Your task to perform on an android device: turn off sleep mode Image 0: 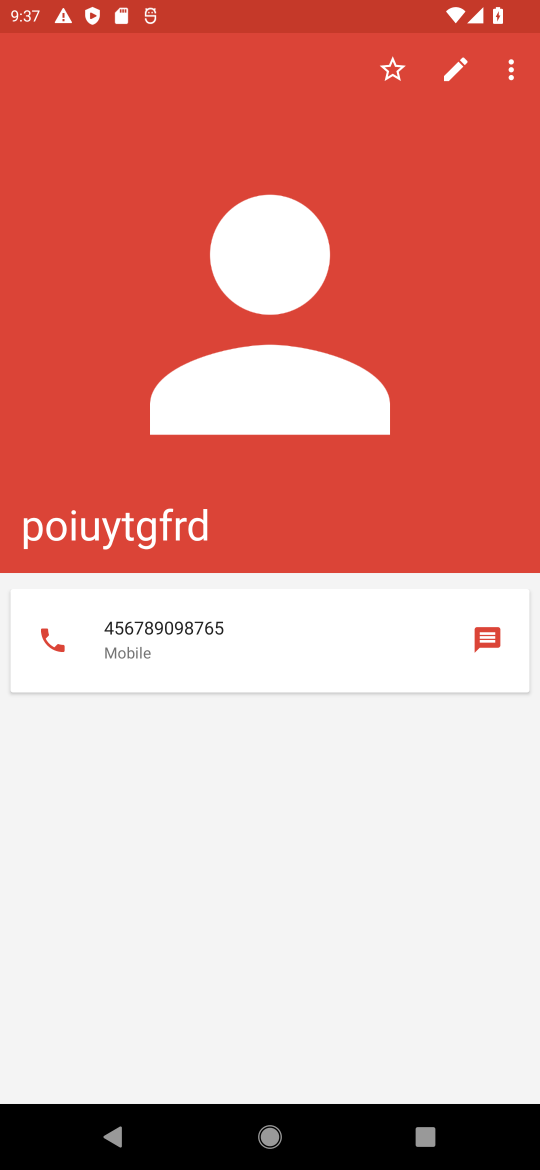
Step 0: press home button
Your task to perform on an android device: turn off sleep mode Image 1: 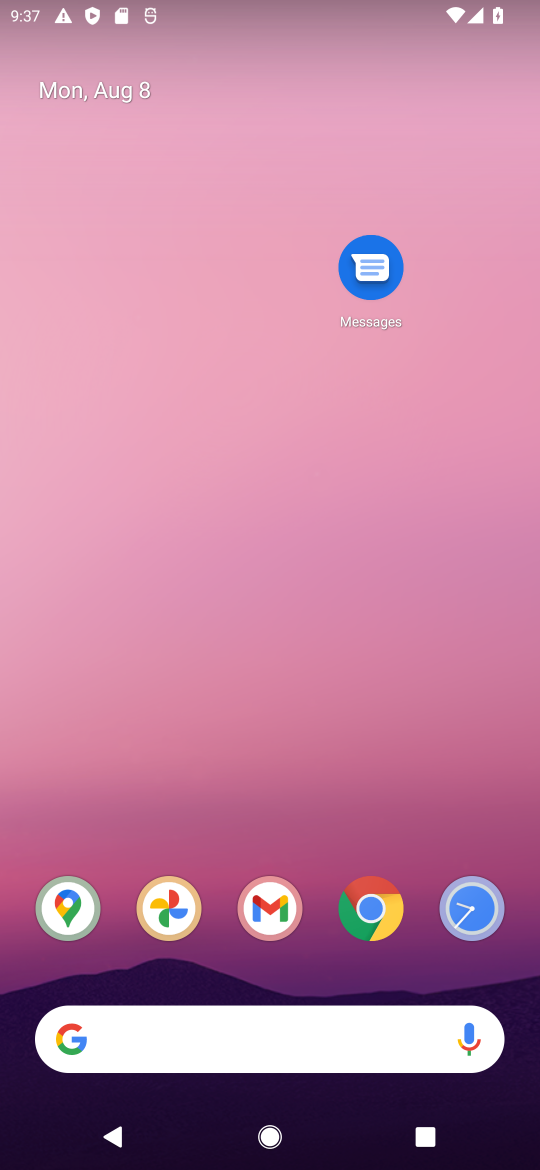
Step 1: click (96, 86)
Your task to perform on an android device: turn off sleep mode Image 2: 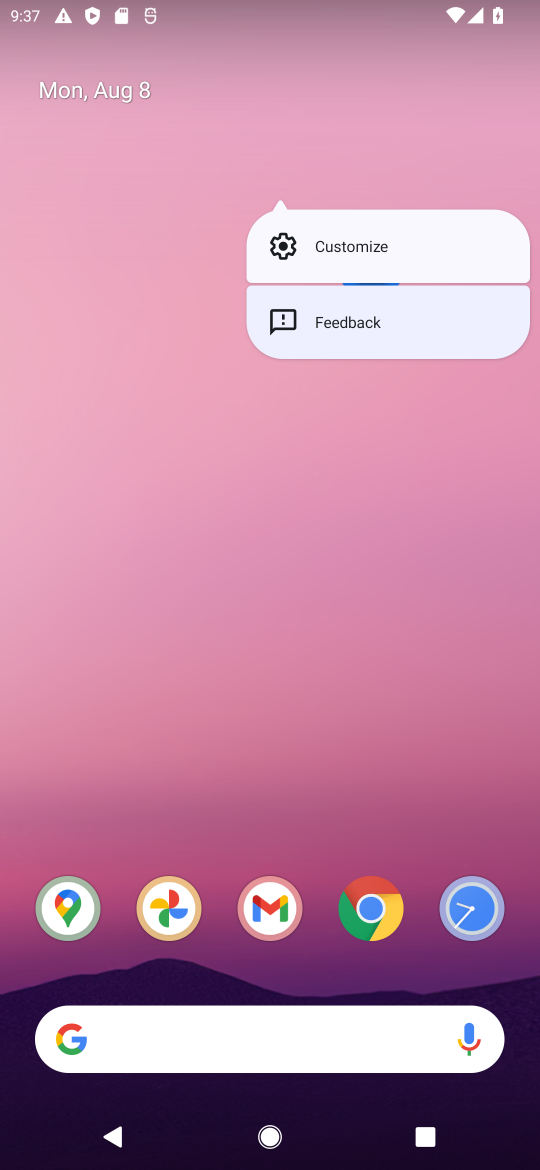
Step 2: click (96, 86)
Your task to perform on an android device: turn off sleep mode Image 3: 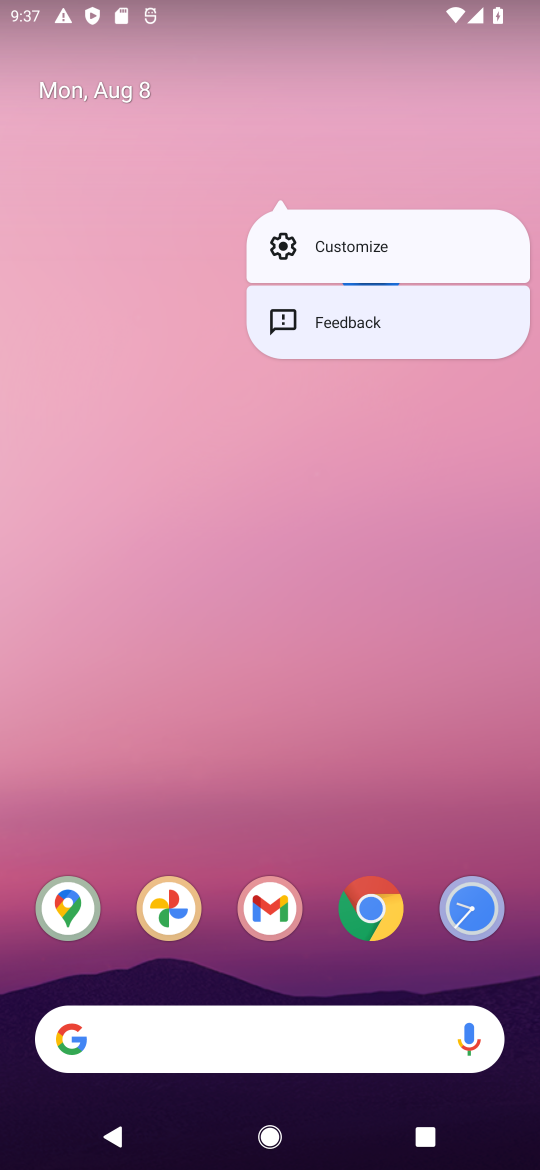
Step 3: click (100, 95)
Your task to perform on an android device: turn off sleep mode Image 4: 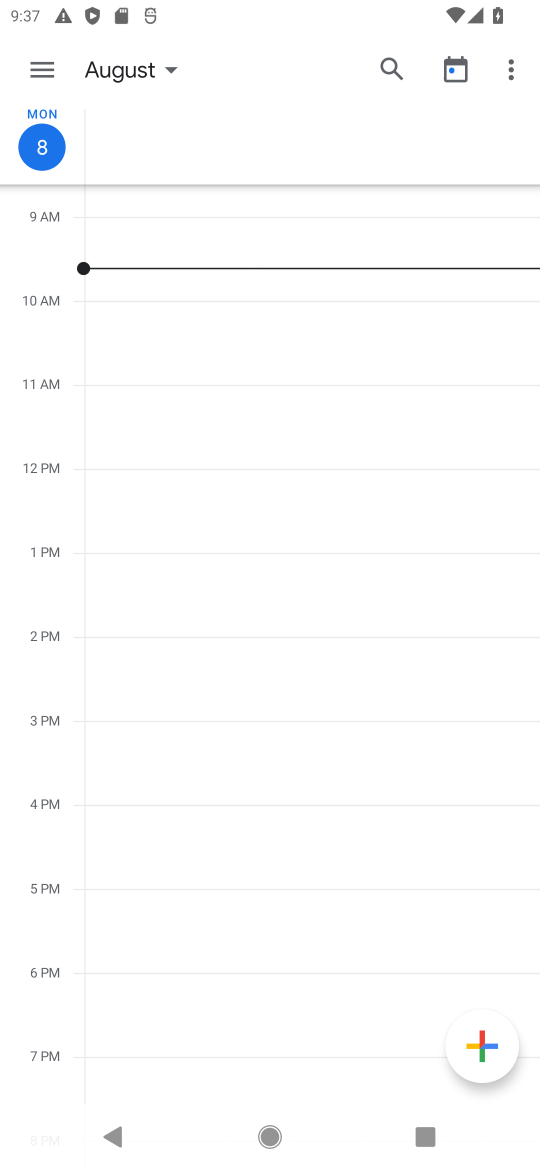
Step 4: press home button
Your task to perform on an android device: turn off sleep mode Image 5: 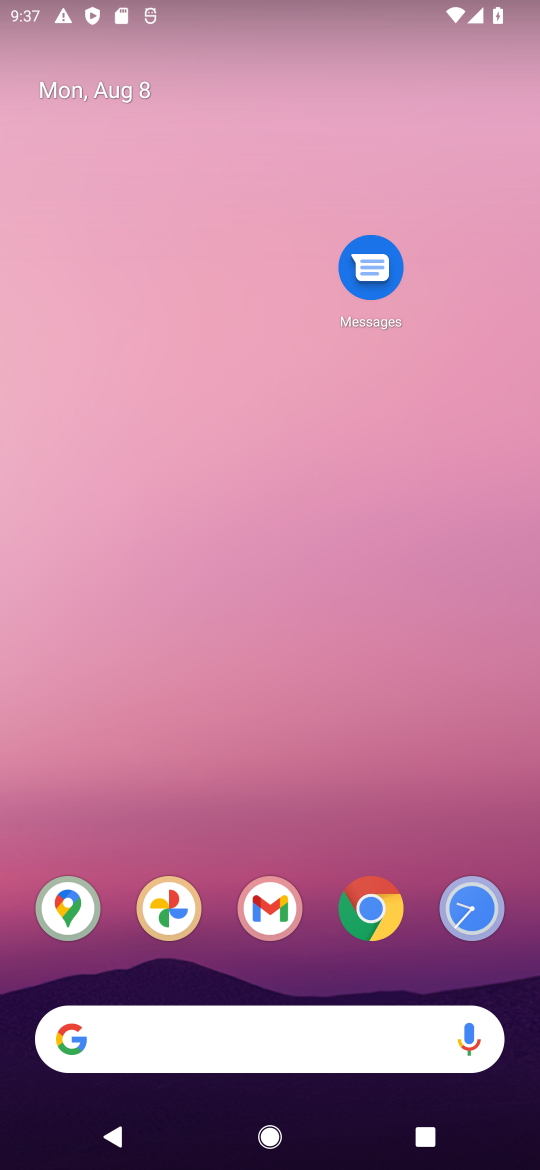
Step 5: drag from (265, 819) to (298, 28)
Your task to perform on an android device: turn off sleep mode Image 6: 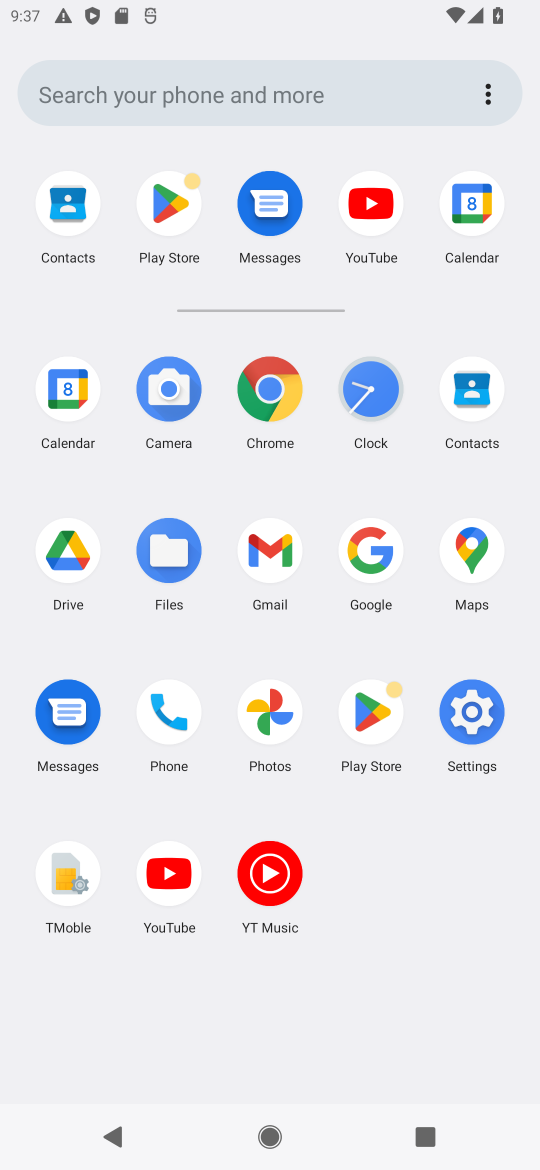
Step 6: click (465, 712)
Your task to perform on an android device: turn off sleep mode Image 7: 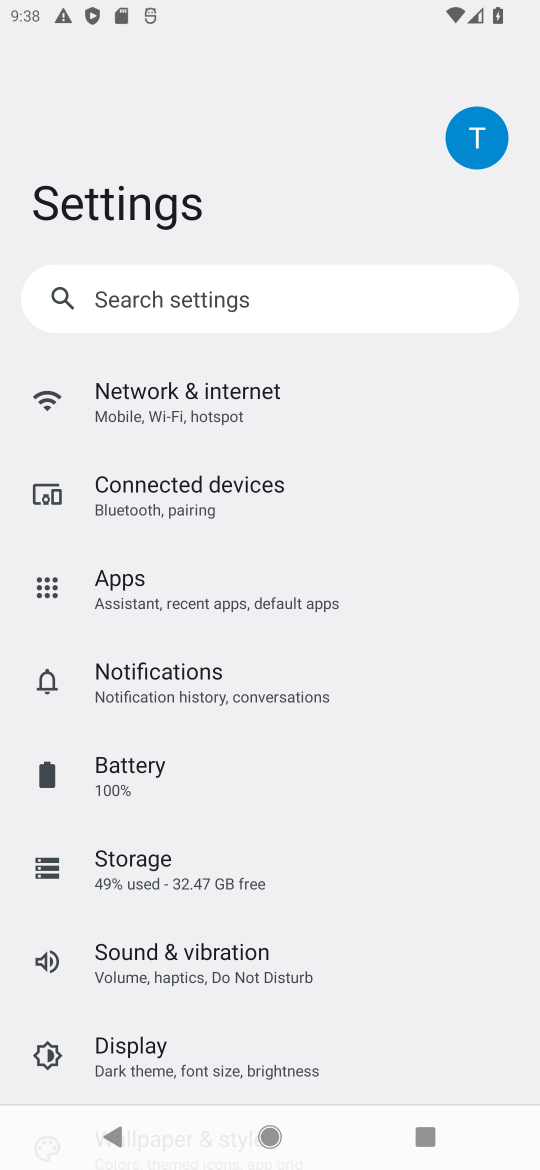
Step 7: task complete